Your task to perform on an android device: Open Google Maps Image 0: 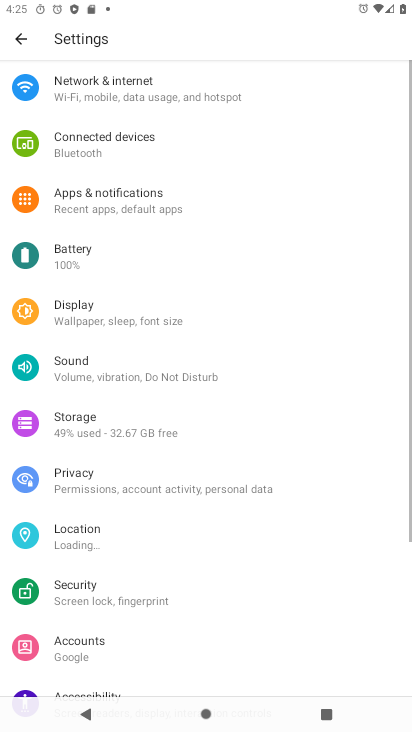
Step 0: press home button
Your task to perform on an android device: Open Google Maps Image 1: 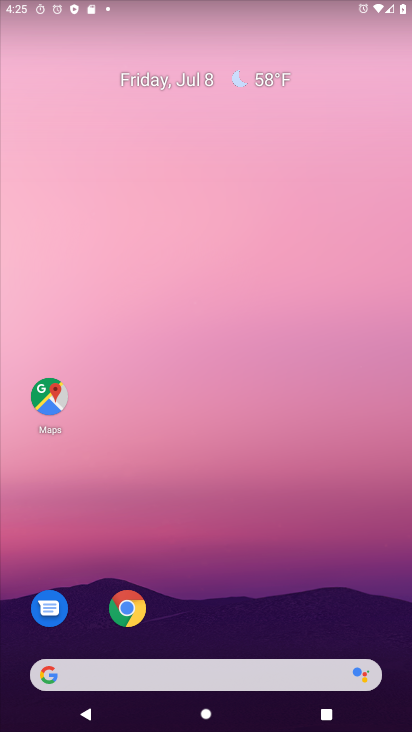
Step 1: click (40, 387)
Your task to perform on an android device: Open Google Maps Image 2: 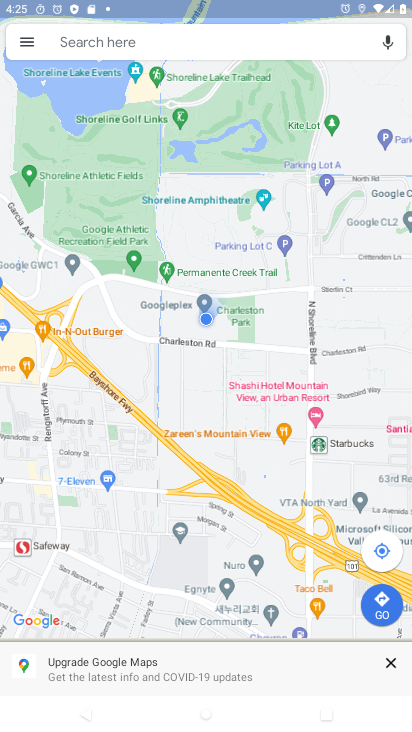
Step 2: task complete